Your task to perform on an android device: Is it going to rain tomorrow? Image 0: 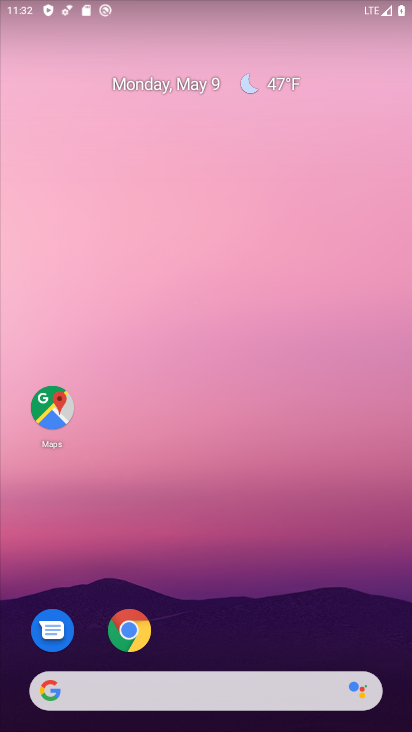
Step 0: press home button
Your task to perform on an android device: Is it going to rain tomorrow? Image 1: 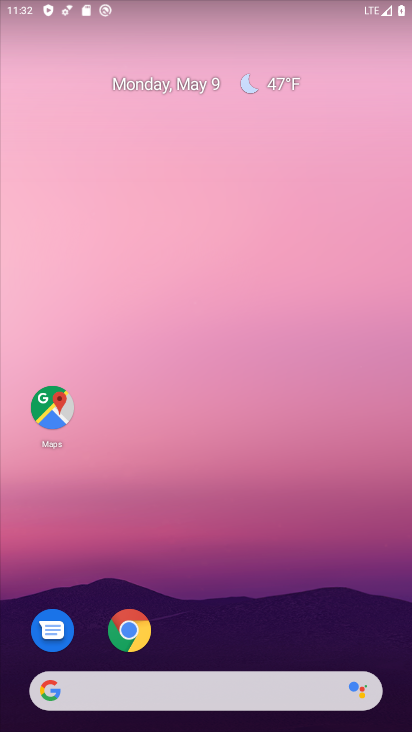
Step 1: click (286, 81)
Your task to perform on an android device: Is it going to rain tomorrow? Image 2: 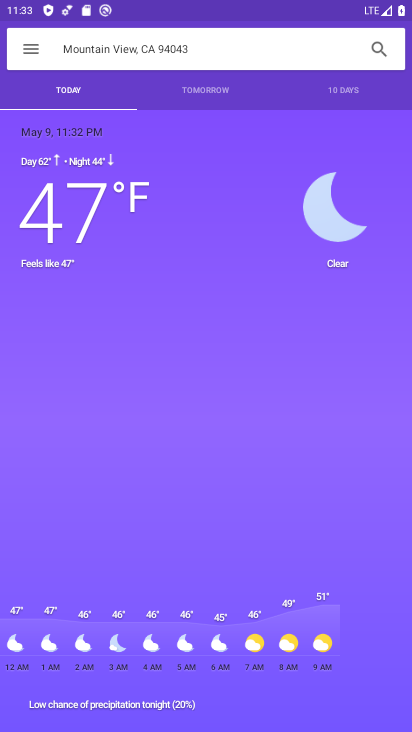
Step 2: click (213, 90)
Your task to perform on an android device: Is it going to rain tomorrow? Image 3: 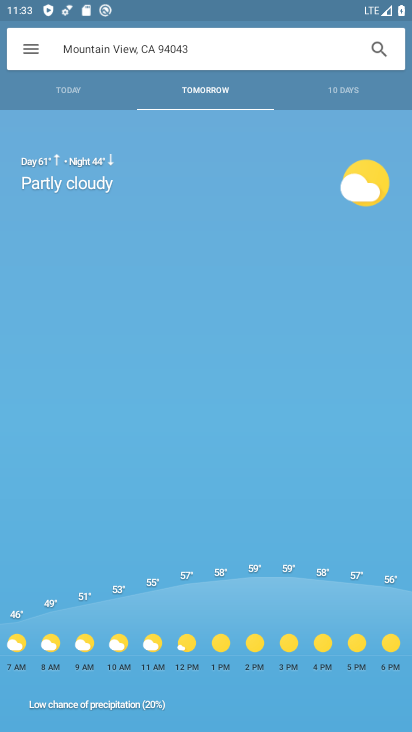
Step 3: task complete